Your task to perform on an android device: Open the map Image 0: 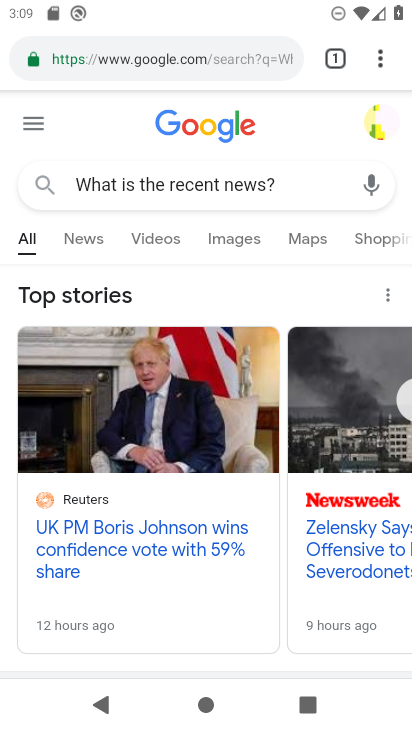
Step 0: press back button
Your task to perform on an android device: Open the map Image 1: 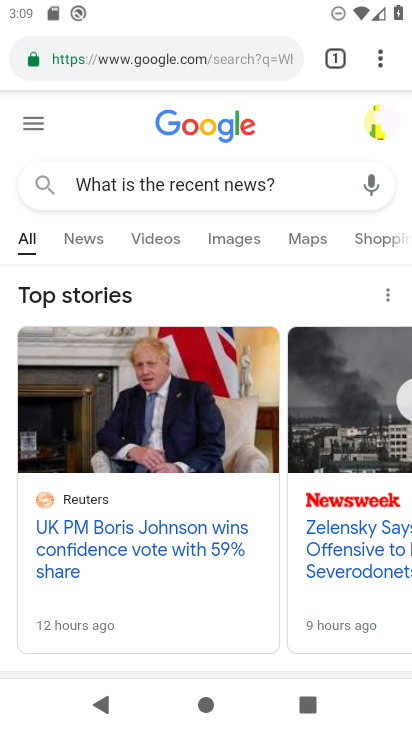
Step 1: press home button
Your task to perform on an android device: Open the map Image 2: 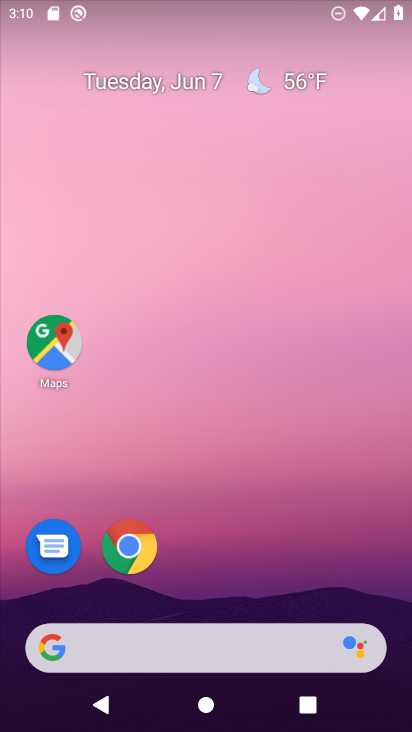
Step 2: click (50, 343)
Your task to perform on an android device: Open the map Image 3: 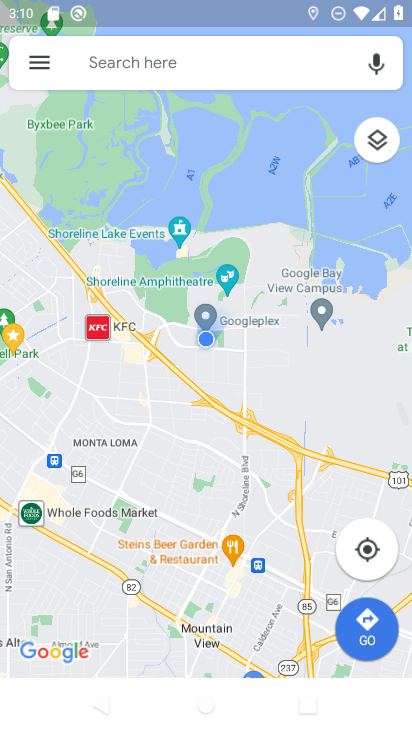
Step 3: task complete